Your task to perform on an android device: Open Yahoo.com Image 0: 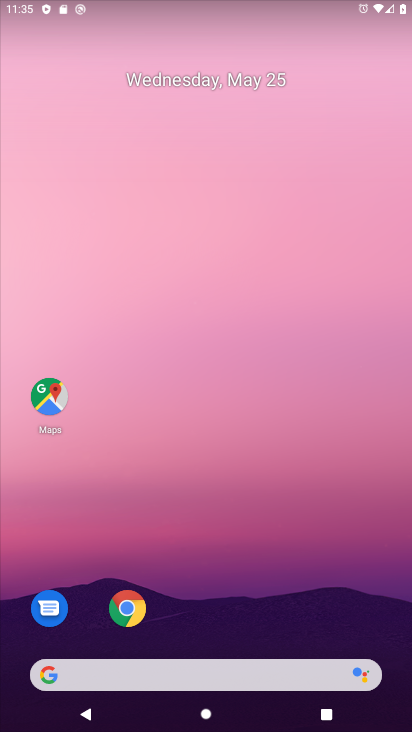
Step 0: click (127, 608)
Your task to perform on an android device: Open Yahoo.com Image 1: 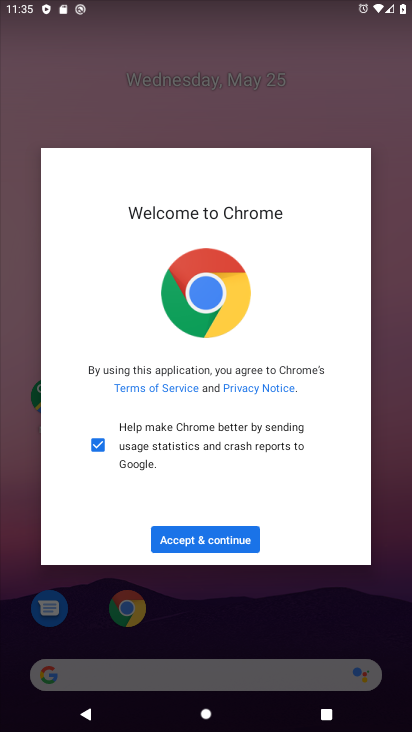
Step 1: click (194, 539)
Your task to perform on an android device: Open Yahoo.com Image 2: 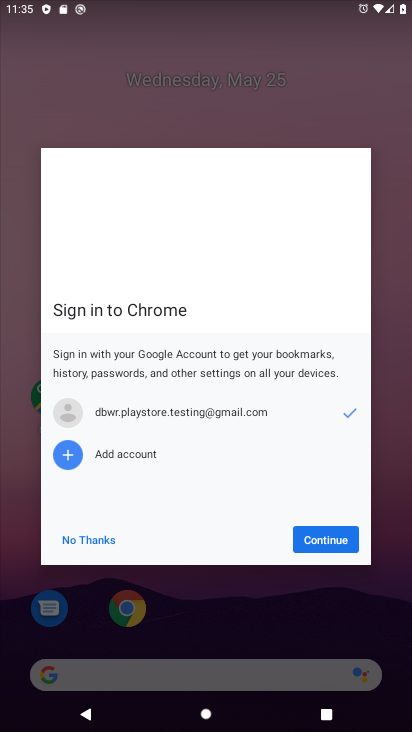
Step 2: click (329, 542)
Your task to perform on an android device: Open Yahoo.com Image 3: 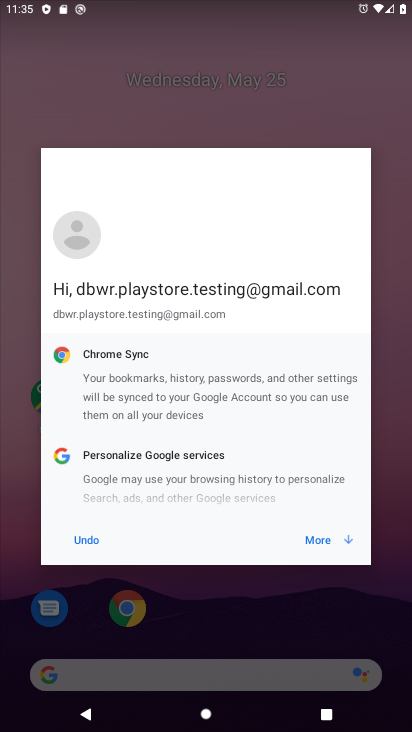
Step 3: click (329, 542)
Your task to perform on an android device: Open Yahoo.com Image 4: 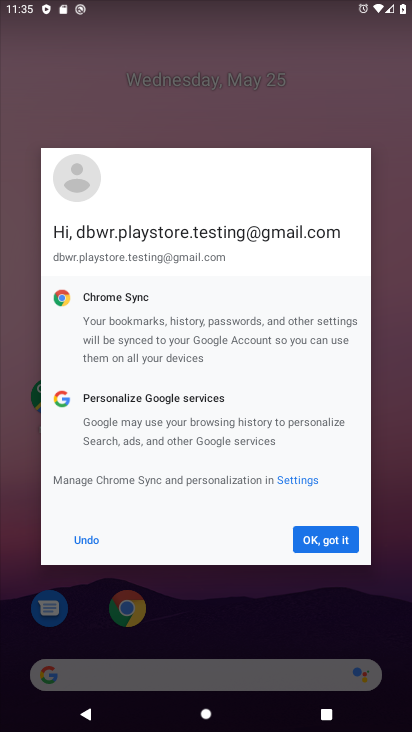
Step 4: click (329, 542)
Your task to perform on an android device: Open Yahoo.com Image 5: 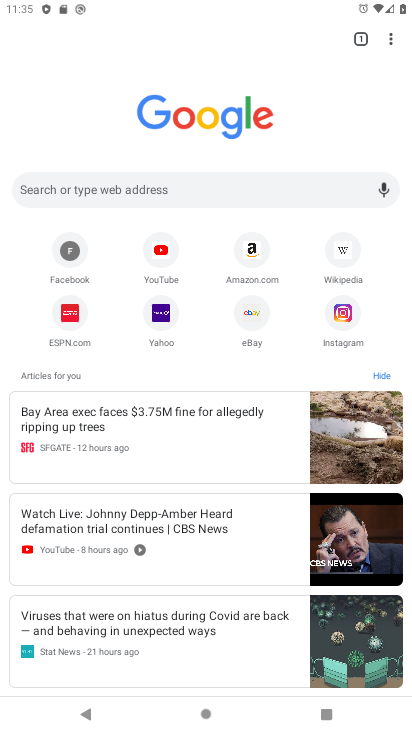
Step 5: click (161, 315)
Your task to perform on an android device: Open Yahoo.com Image 6: 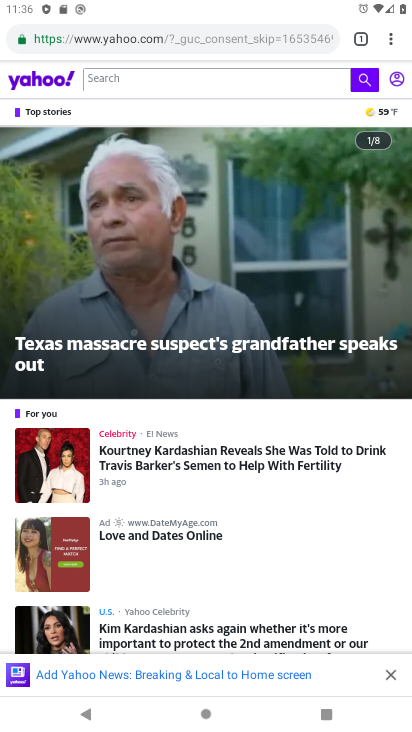
Step 6: task complete